Your task to perform on an android device: turn on the 24-hour format for clock Image 0: 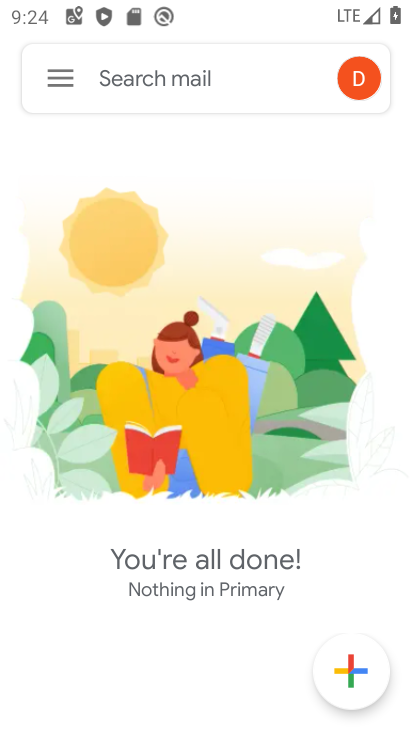
Step 0: press home button
Your task to perform on an android device: turn on the 24-hour format for clock Image 1: 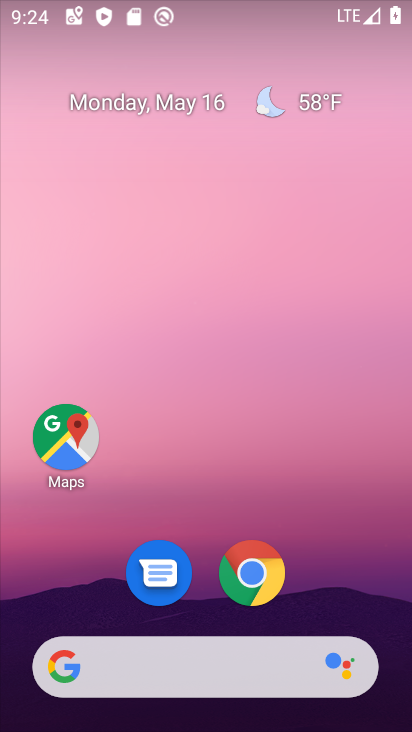
Step 1: drag from (204, 721) to (194, 228)
Your task to perform on an android device: turn on the 24-hour format for clock Image 2: 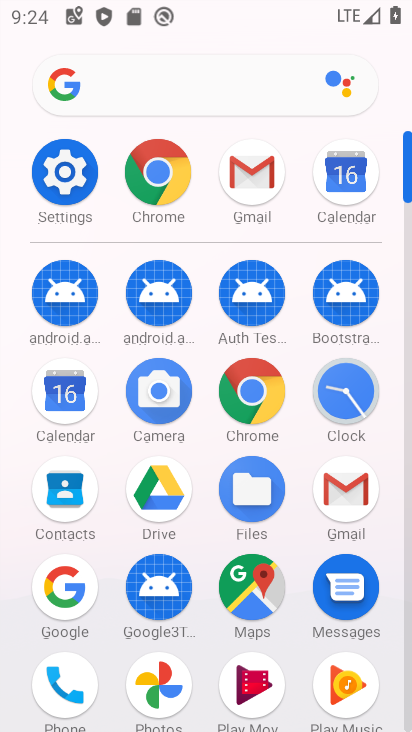
Step 2: click (346, 389)
Your task to perform on an android device: turn on the 24-hour format for clock Image 3: 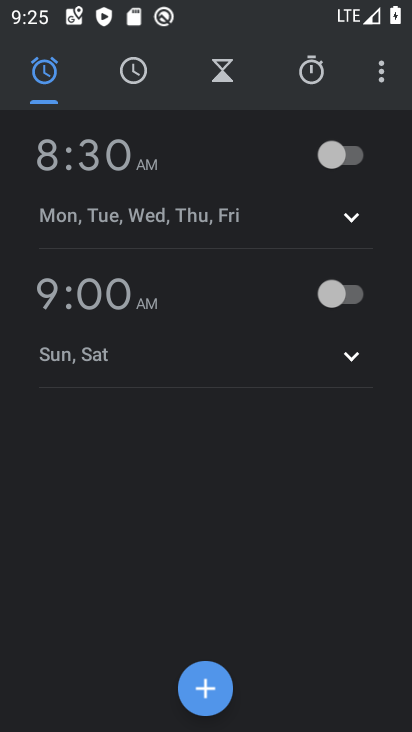
Step 3: click (386, 79)
Your task to perform on an android device: turn on the 24-hour format for clock Image 4: 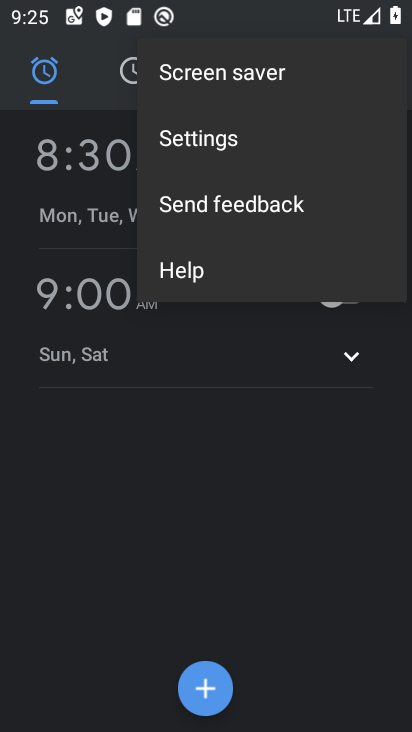
Step 4: click (182, 140)
Your task to perform on an android device: turn on the 24-hour format for clock Image 5: 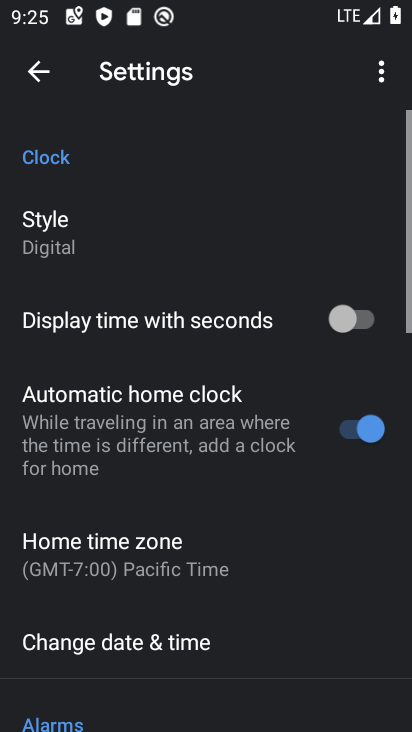
Step 5: drag from (169, 626) to (163, 248)
Your task to perform on an android device: turn on the 24-hour format for clock Image 6: 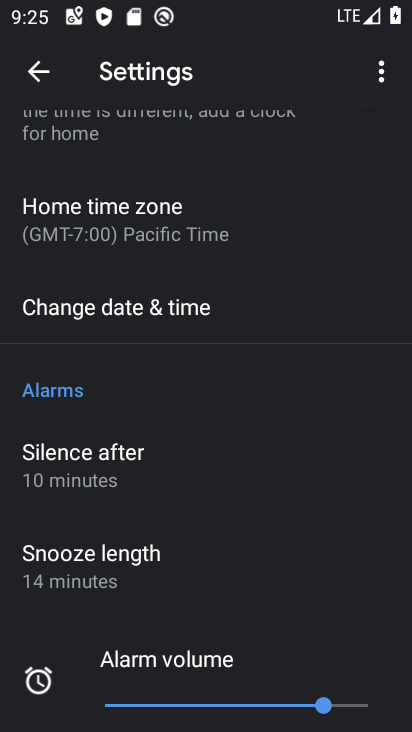
Step 6: click (143, 305)
Your task to perform on an android device: turn on the 24-hour format for clock Image 7: 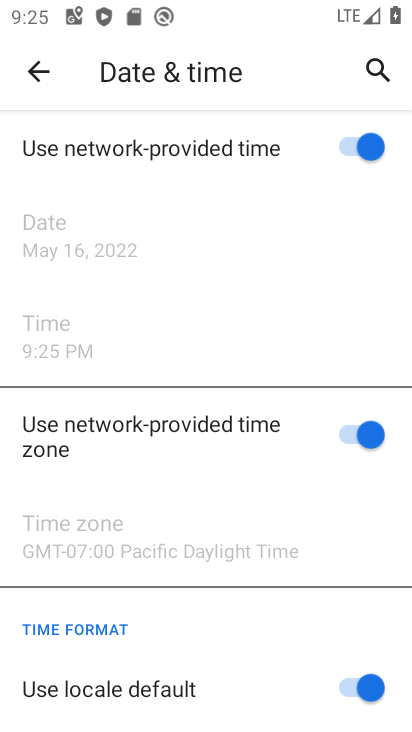
Step 7: drag from (204, 677) to (212, 229)
Your task to perform on an android device: turn on the 24-hour format for clock Image 8: 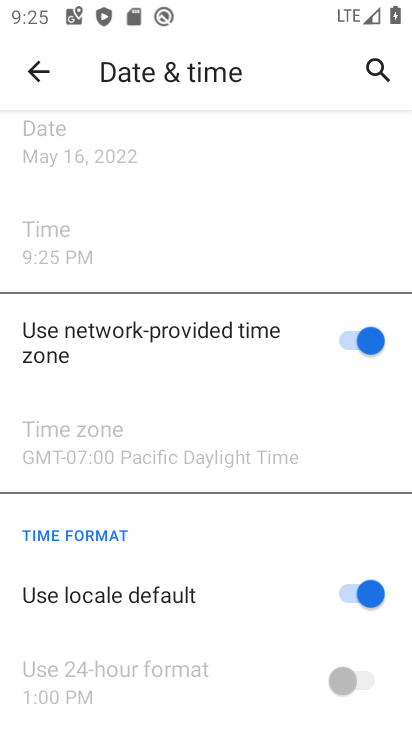
Step 8: click (354, 601)
Your task to perform on an android device: turn on the 24-hour format for clock Image 9: 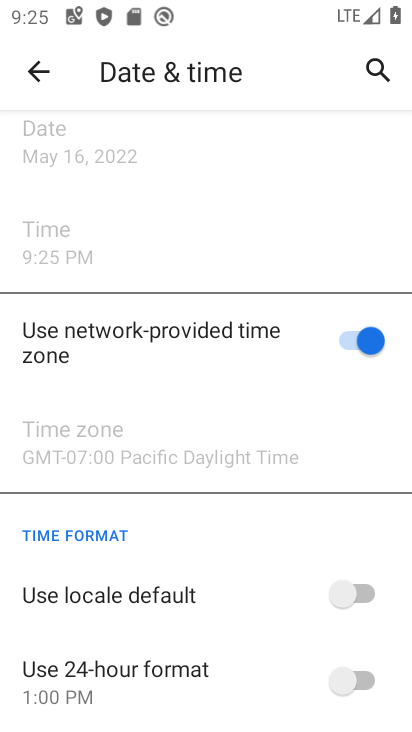
Step 9: click (365, 679)
Your task to perform on an android device: turn on the 24-hour format for clock Image 10: 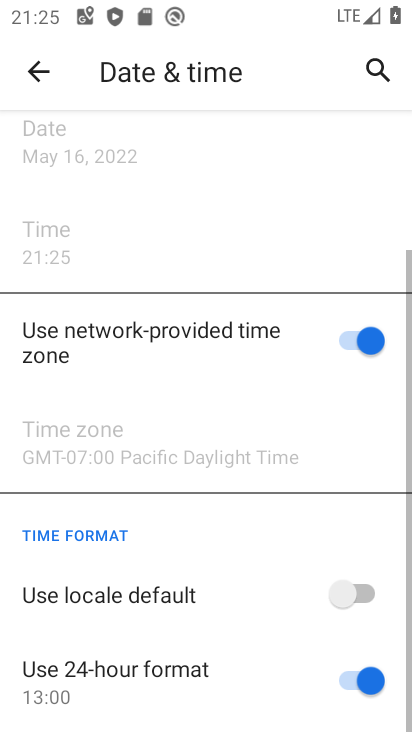
Step 10: task complete